Your task to perform on an android device: turn off wifi Image 0: 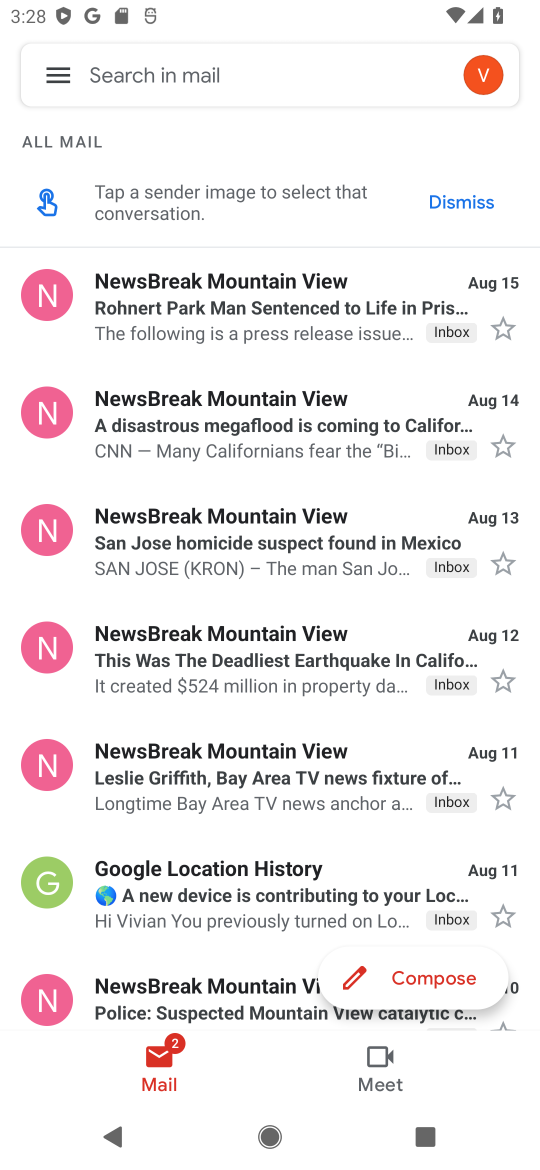
Step 0: press back button
Your task to perform on an android device: turn off wifi Image 1: 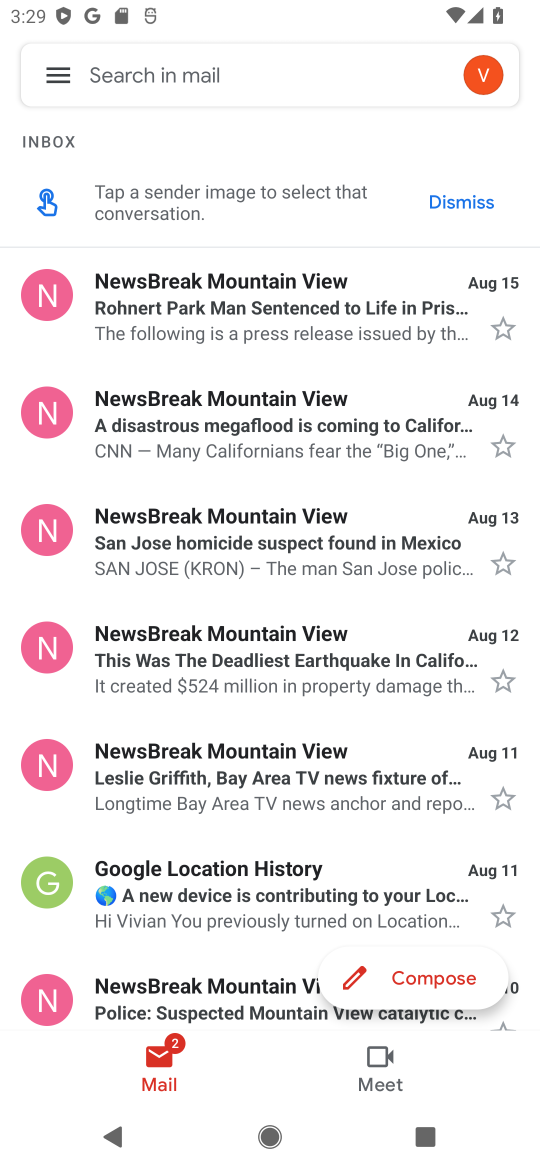
Step 1: press back button
Your task to perform on an android device: turn off wifi Image 2: 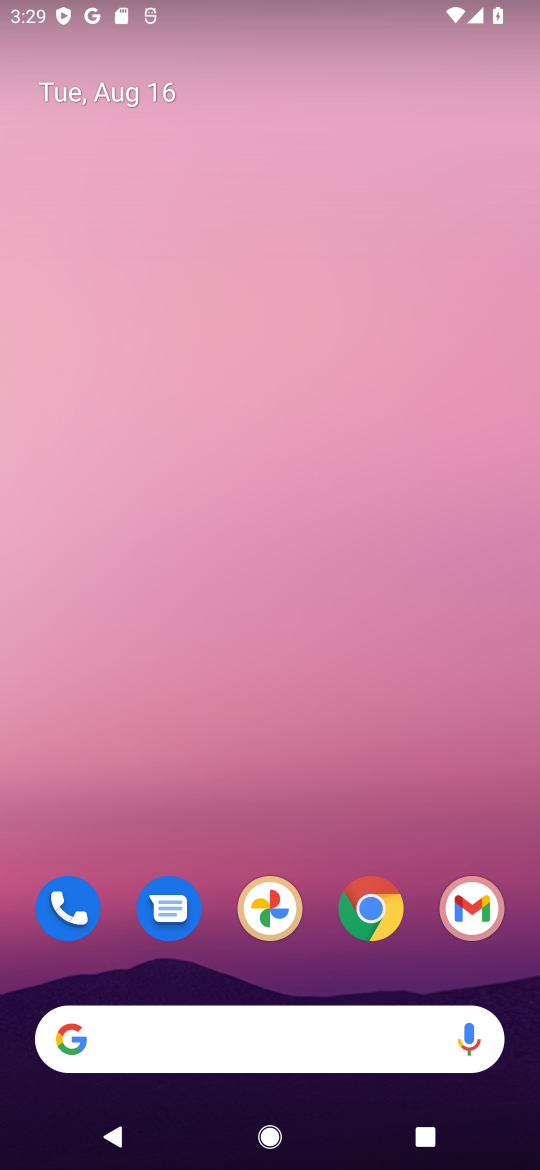
Step 2: drag from (168, 200) to (207, 457)
Your task to perform on an android device: turn off wifi Image 3: 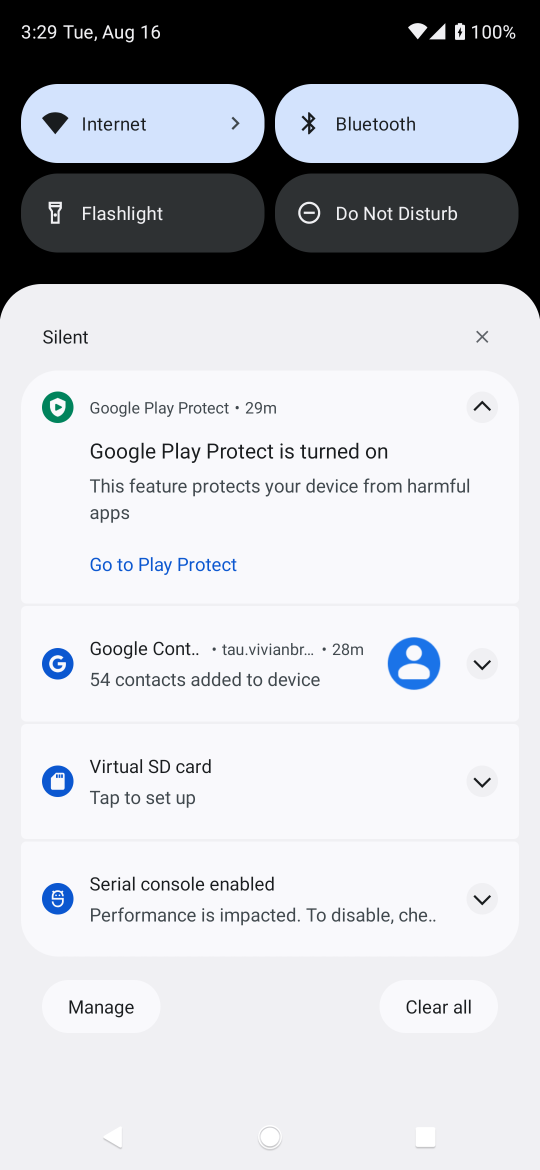
Step 3: click (136, 122)
Your task to perform on an android device: turn off wifi Image 4: 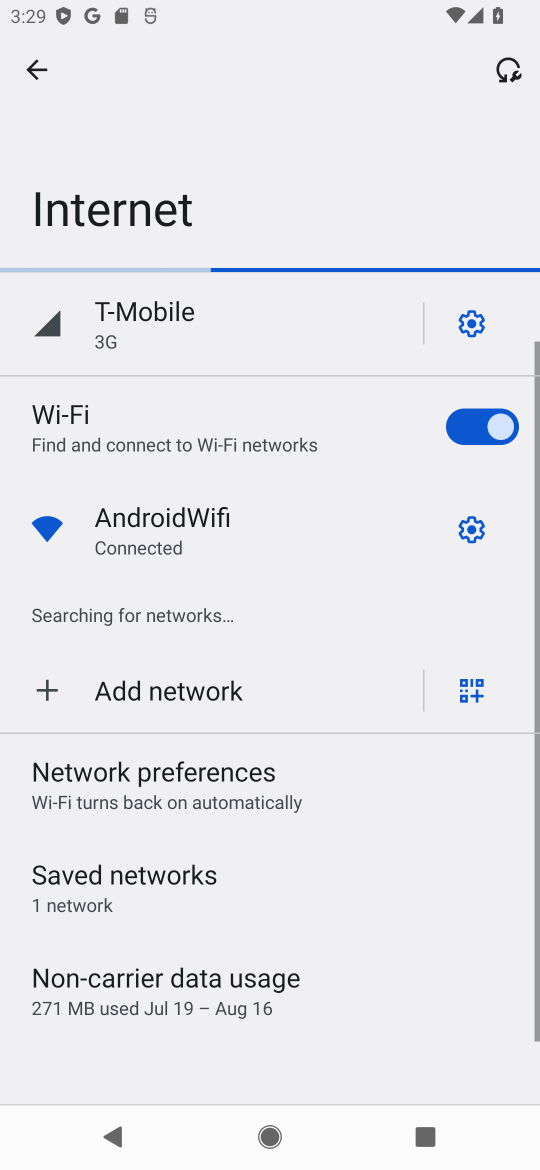
Step 4: click (487, 420)
Your task to perform on an android device: turn off wifi Image 5: 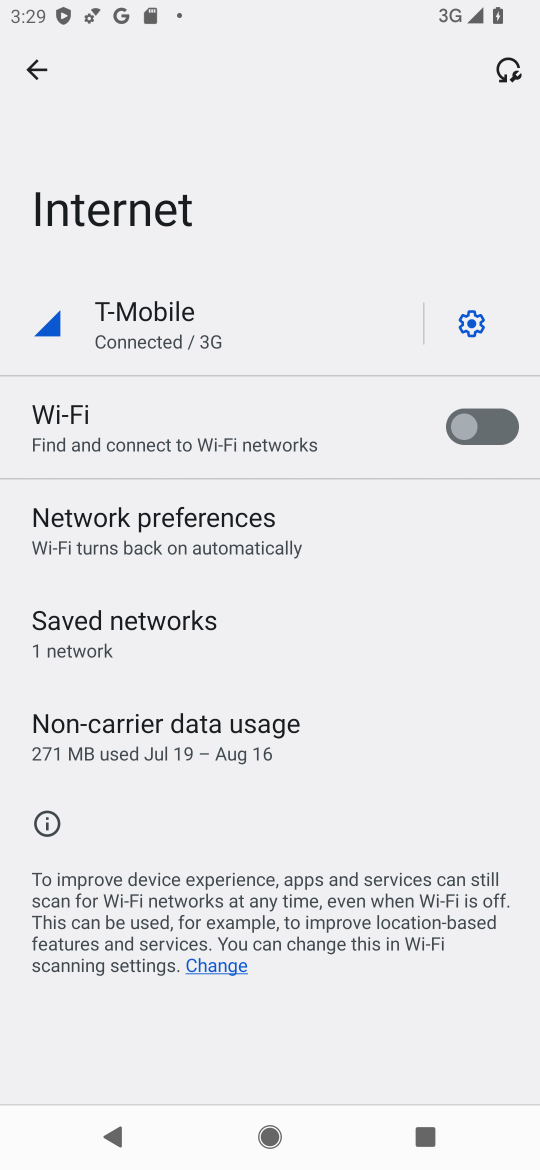
Step 5: task complete